Your task to perform on an android device: delete browsing data in the chrome app Image 0: 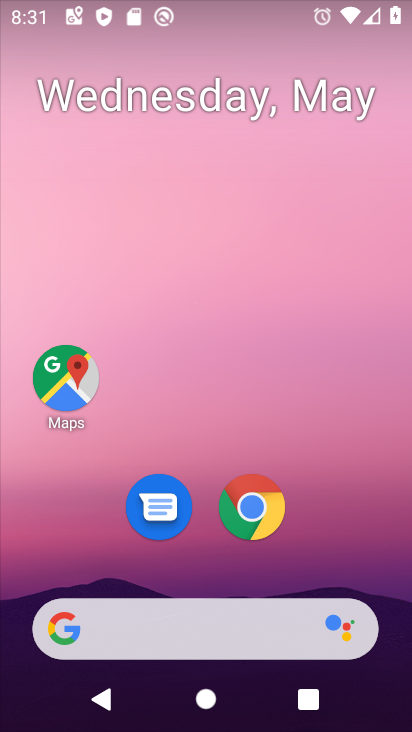
Step 0: click (259, 496)
Your task to perform on an android device: delete browsing data in the chrome app Image 1: 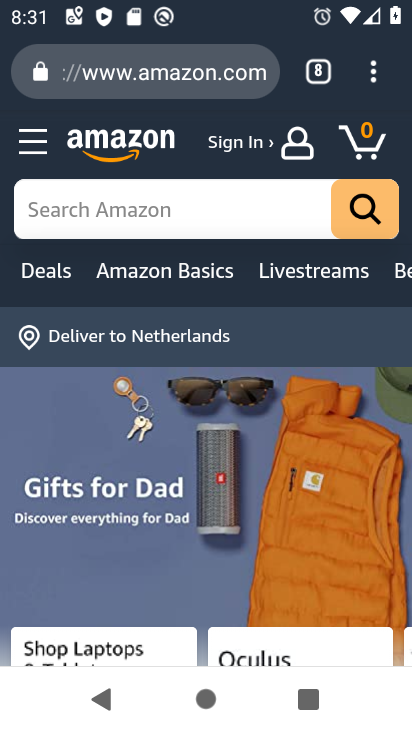
Step 1: click (375, 74)
Your task to perform on an android device: delete browsing data in the chrome app Image 2: 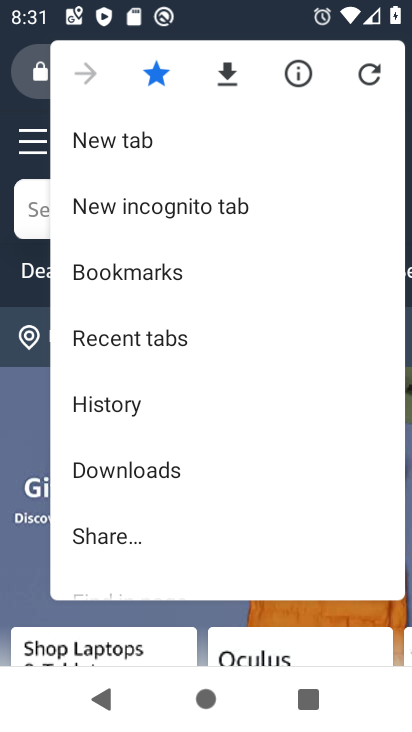
Step 2: drag from (158, 507) to (199, 279)
Your task to perform on an android device: delete browsing data in the chrome app Image 3: 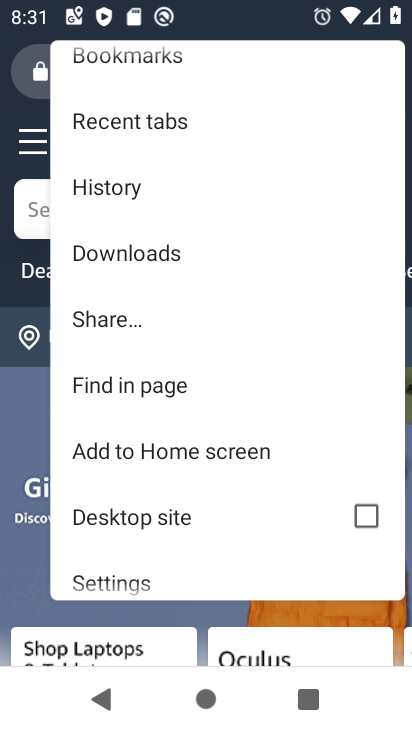
Step 3: click (138, 571)
Your task to perform on an android device: delete browsing data in the chrome app Image 4: 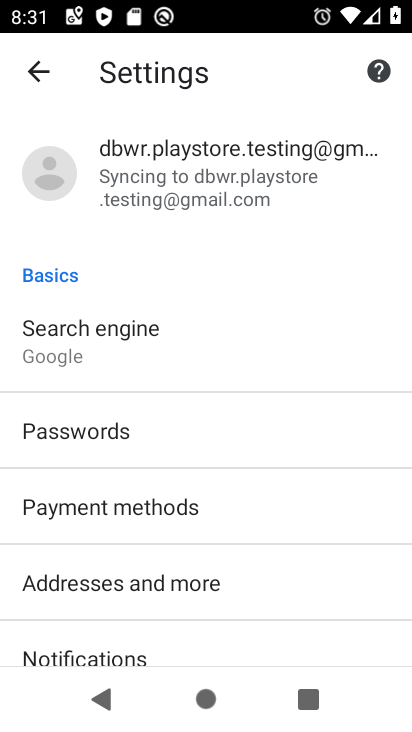
Step 4: drag from (146, 574) to (187, 285)
Your task to perform on an android device: delete browsing data in the chrome app Image 5: 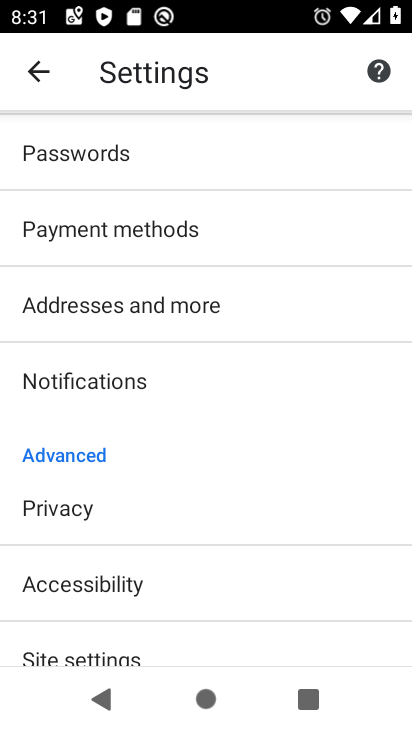
Step 5: click (81, 516)
Your task to perform on an android device: delete browsing data in the chrome app Image 6: 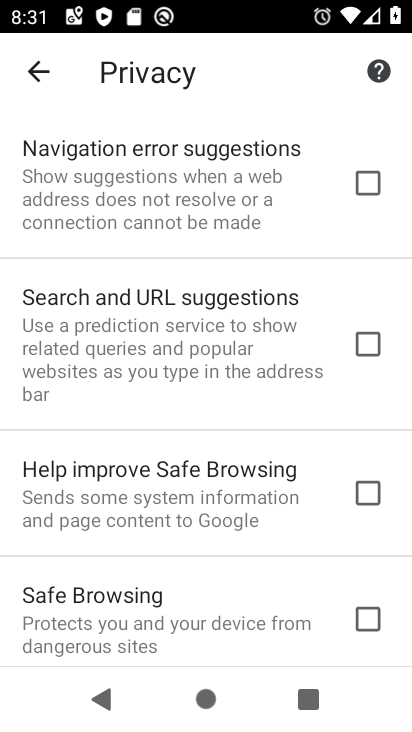
Step 6: drag from (215, 597) to (259, 270)
Your task to perform on an android device: delete browsing data in the chrome app Image 7: 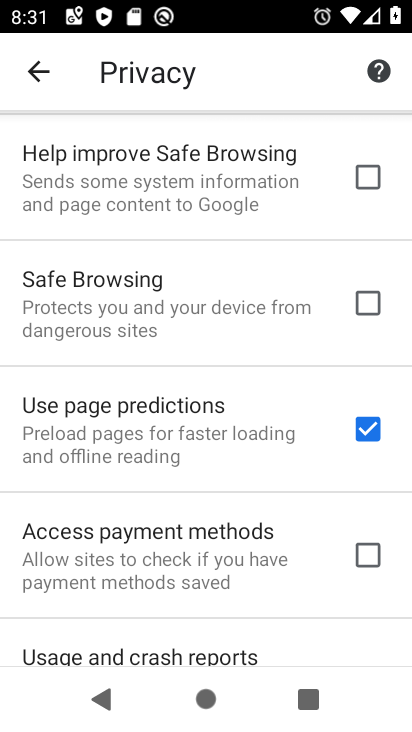
Step 7: drag from (200, 590) to (213, 197)
Your task to perform on an android device: delete browsing data in the chrome app Image 8: 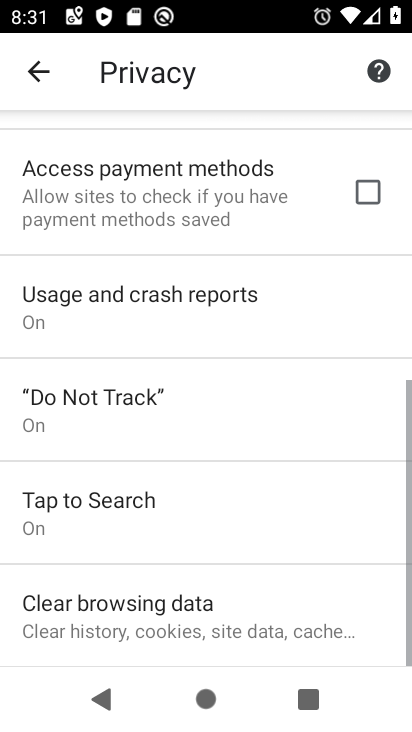
Step 8: click (188, 612)
Your task to perform on an android device: delete browsing data in the chrome app Image 9: 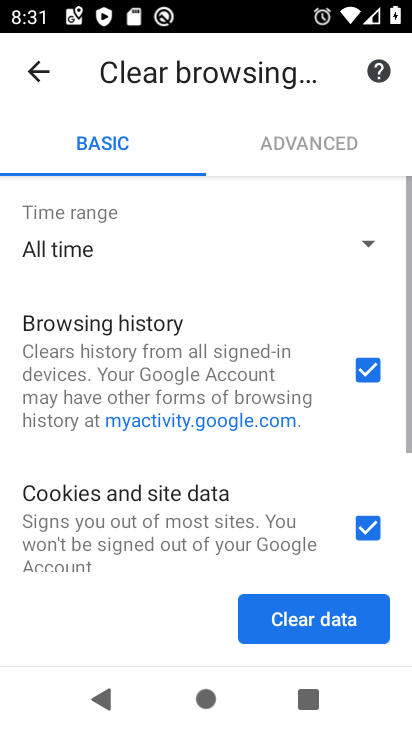
Step 9: click (318, 623)
Your task to perform on an android device: delete browsing data in the chrome app Image 10: 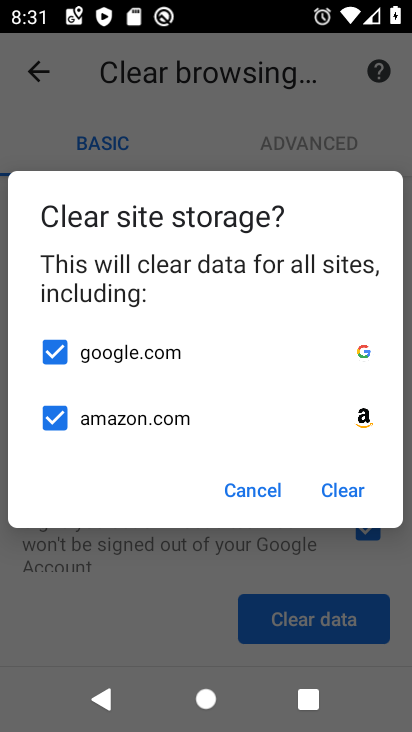
Step 10: click (353, 485)
Your task to perform on an android device: delete browsing data in the chrome app Image 11: 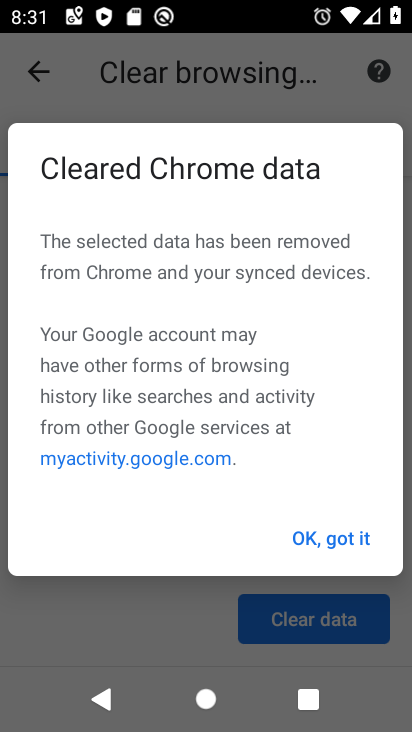
Step 11: click (336, 532)
Your task to perform on an android device: delete browsing data in the chrome app Image 12: 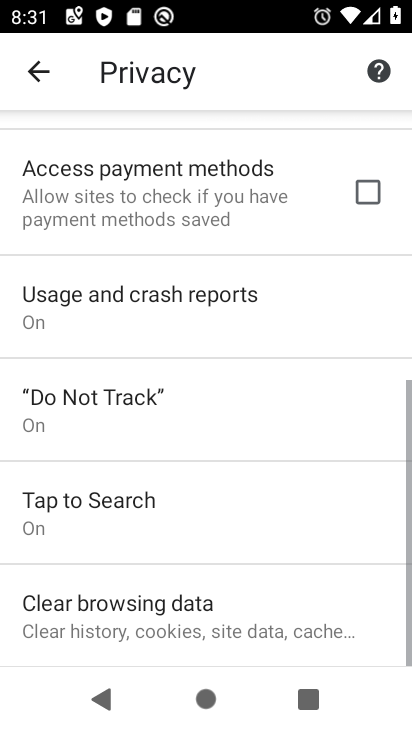
Step 12: task complete